Your task to perform on an android device: Go to calendar. Show me events next week Image 0: 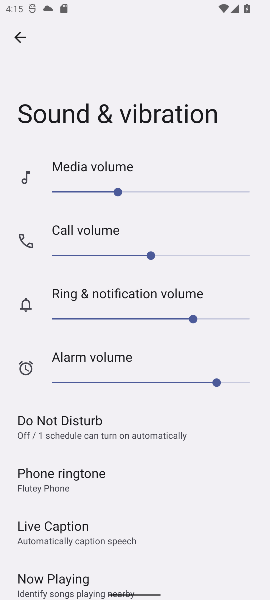
Step 0: task complete